Your task to perform on an android device: Search for vegetarian restaurants on Maps Image 0: 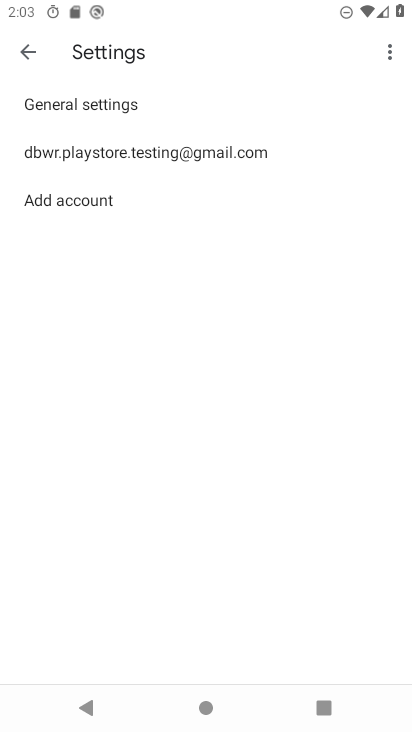
Step 0: press home button
Your task to perform on an android device: Search for vegetarian restaurants on Maps Image 1: 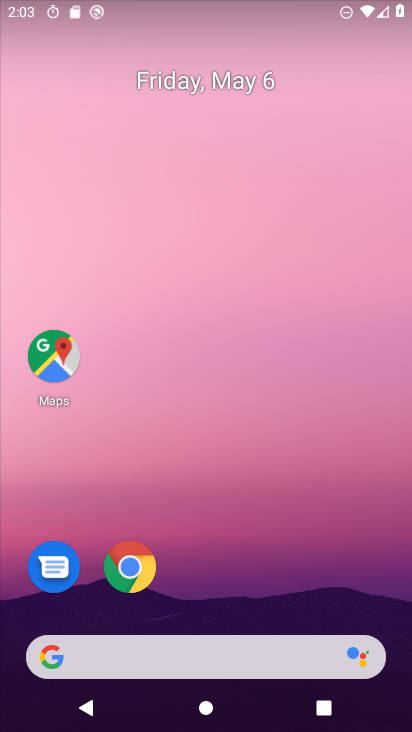
Step 1: drag from (280, 682) to (212, 269)
Your task to perform on an android device: Search for vegetarian restaurants on Maps Image 2: 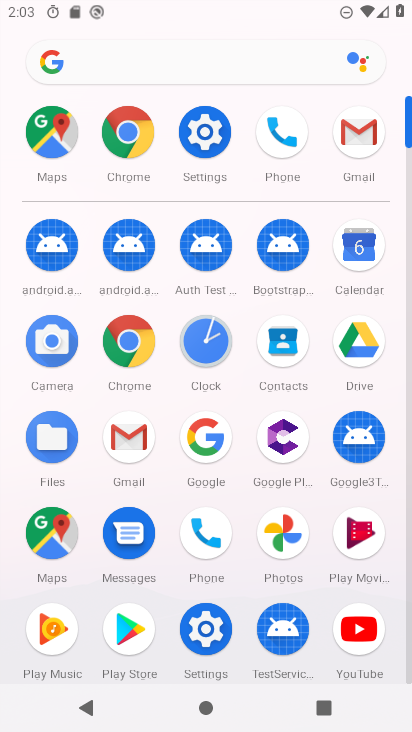
Step 2: click (58, 125)
Your task to perform on an android device: Search for vegetarian restaurants on Maps Image 3: 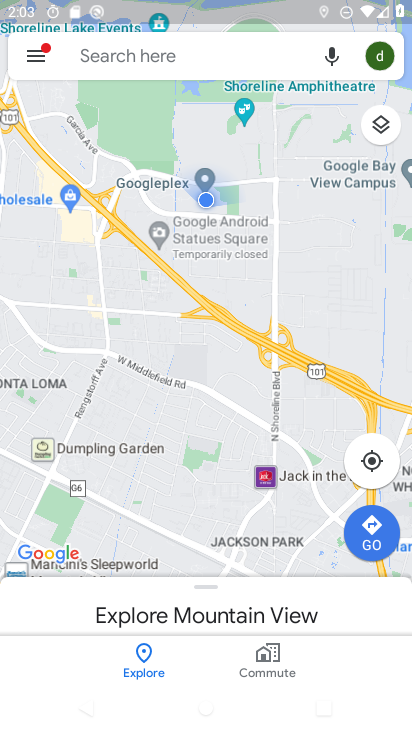
Step 3: click (135, 56)
Your task to perform on an android device: Search for vegetarian restaurants on Maps Image 4: 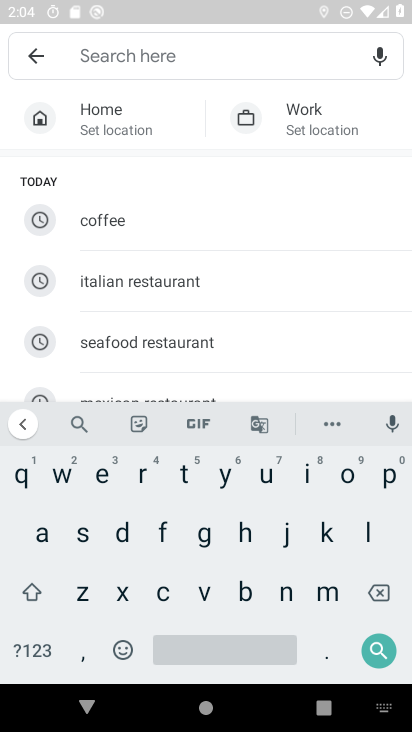
Step 4: click (199, 596)
Your task to perform on an android device: Search for vegetarian restaurants on Maps Image 5: 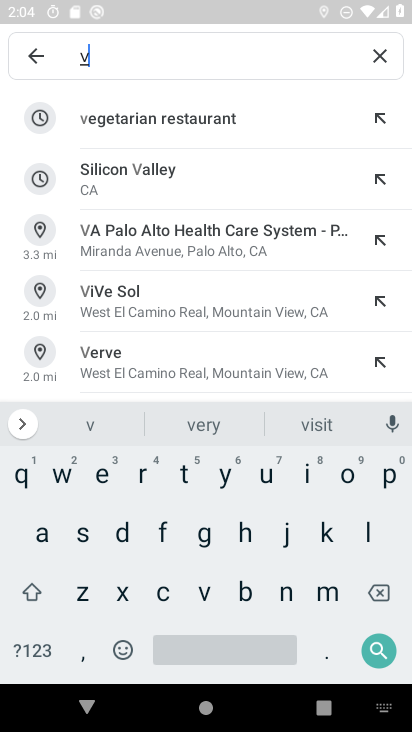
Step 5: click (202, 121)
Your task to perform on an android device: Search for vegetarian restaurants on Maps Image 6: 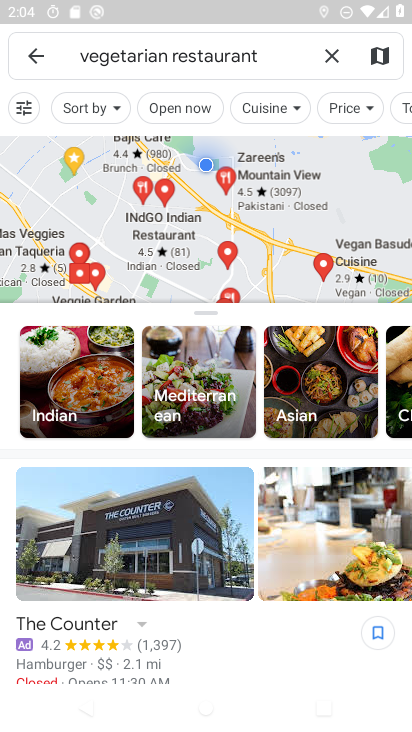
Step 6: click (126, 208)
Your task to perform on an android device: Search for vegetarian restaurants on Maps Image 7: 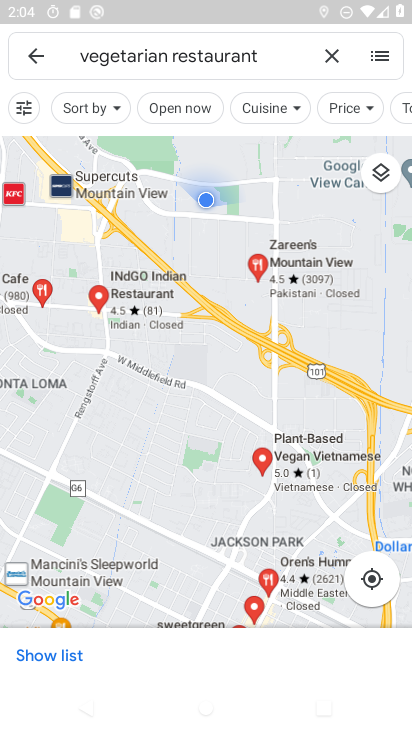
Step 7: task complete